Your task to perform on an android device: Turn on the flashlight Image 0: 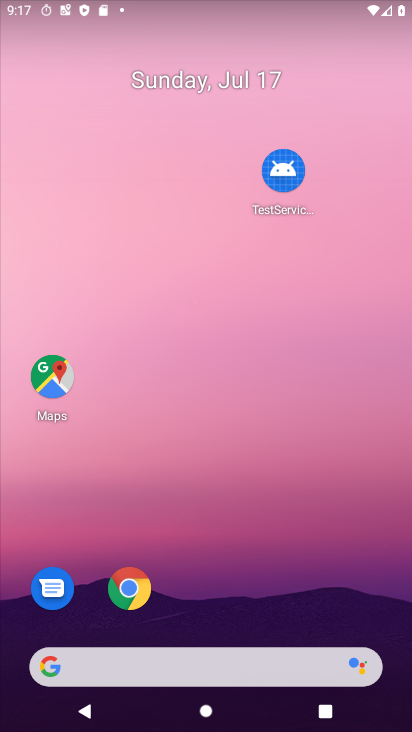
Step 0: drag from (301, 14) to (262, 586)
Your task to perform on an android device: Turn on the flashlight Image 1: 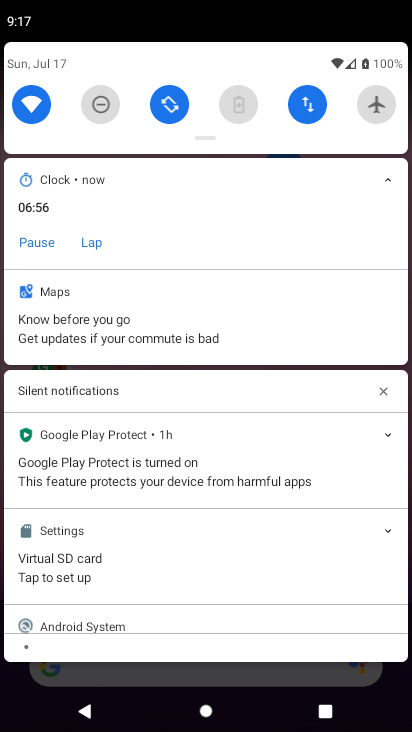
Step 1: task complete